Your task to perform on an android device: Search for seafood restaurants on Google Maps Image 0: 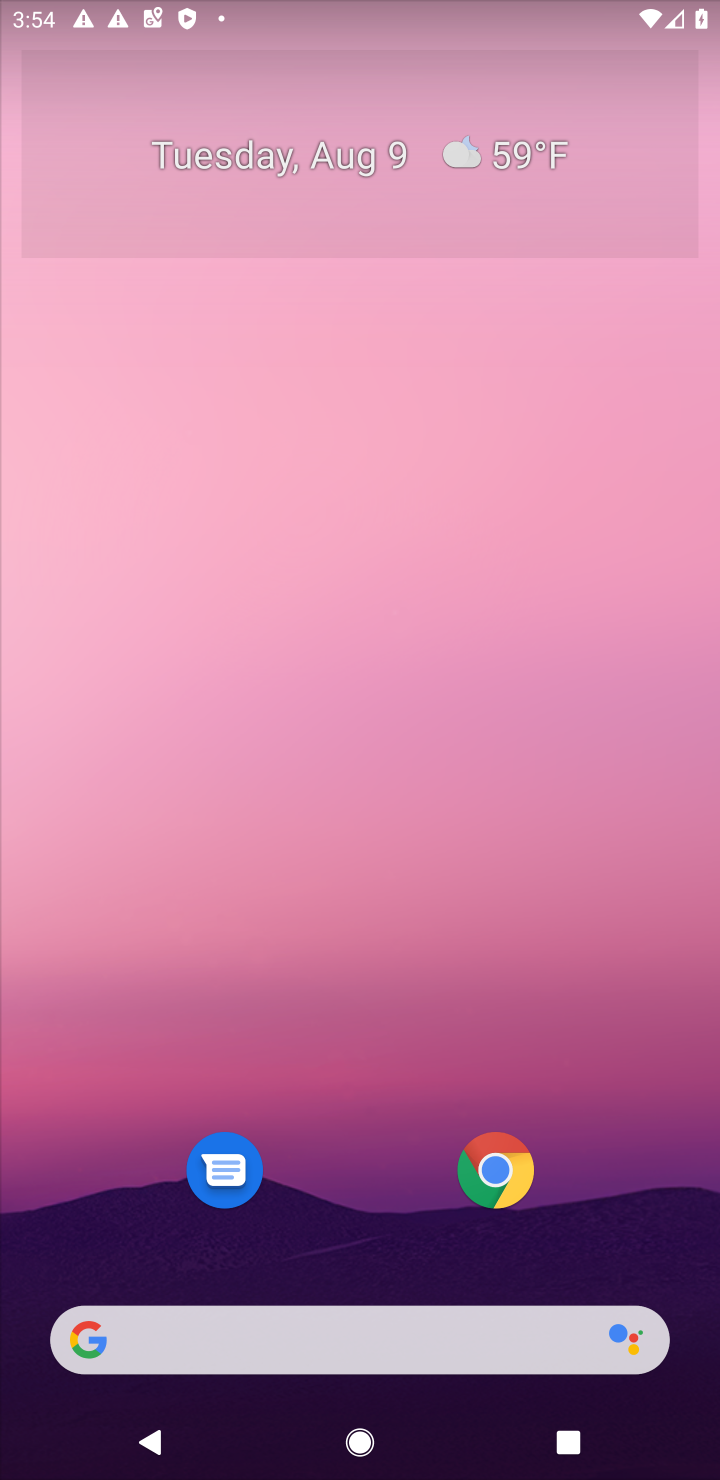
Step 0: press home button
Your task to perform on an android device: Search for seafood restaurants on Google Maps Image 1: 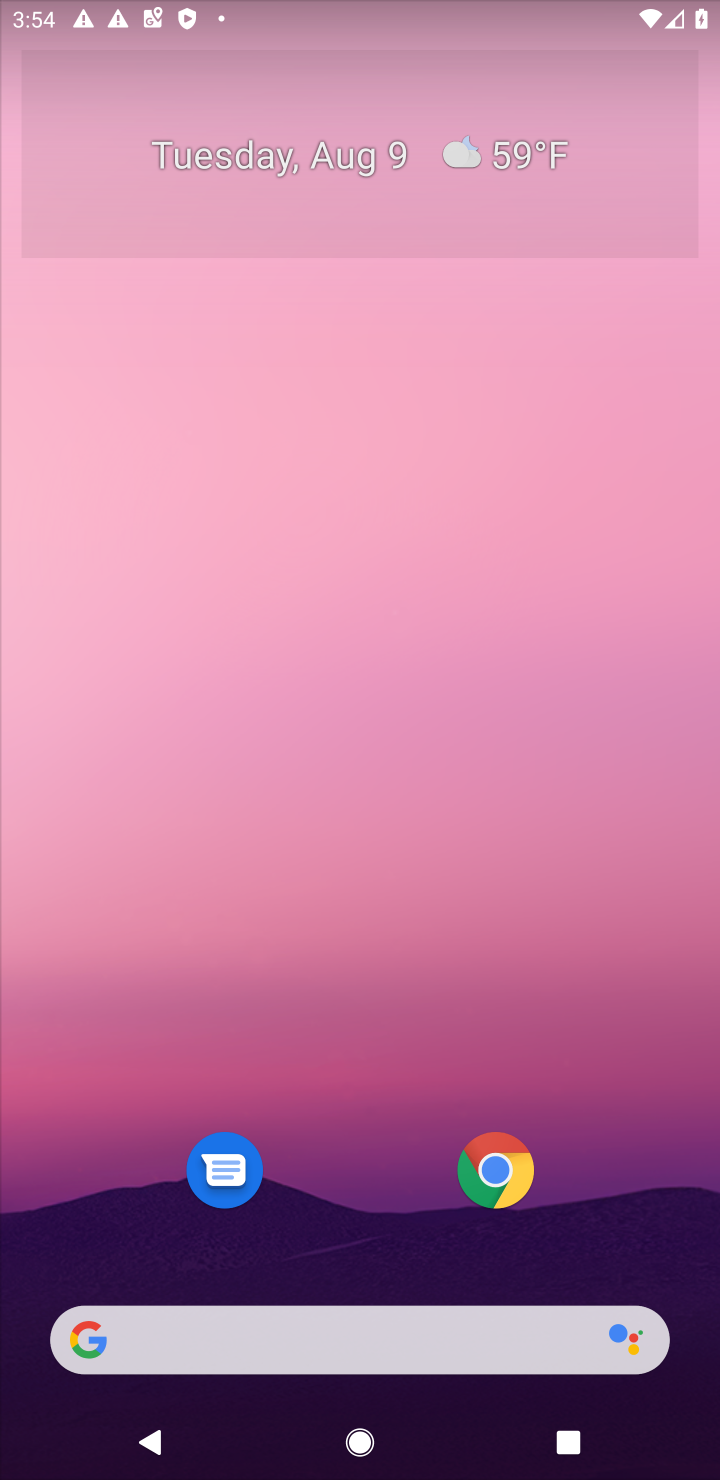
Step 1: drag from (384, 544) to (395, 345)
Your task to perform on an android device: Search for seafood restaurants on Google Maps Image 2: 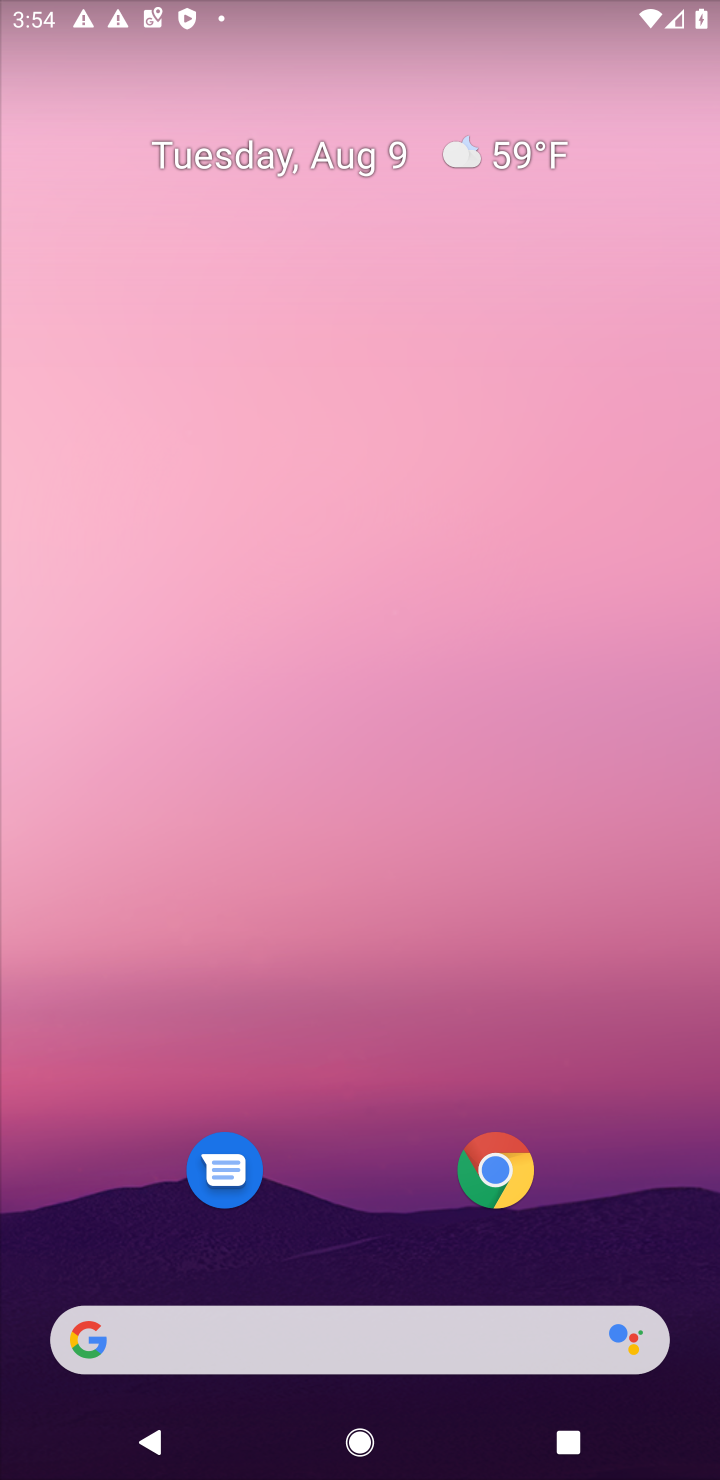
Step 2: drag from (370, 1212) to (348, 41)
Your task to perform on an android device: Search for seafood restaurants on Google Maps Image 3: 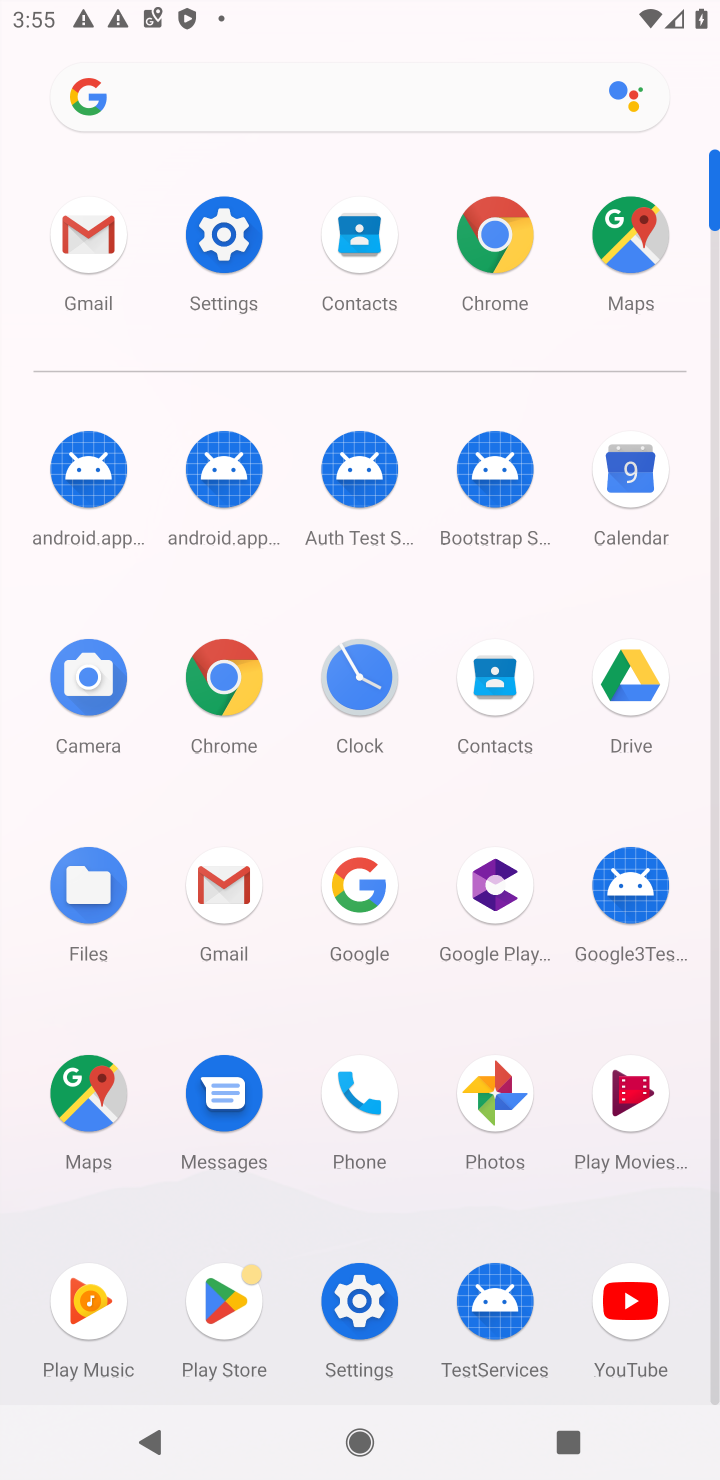
Step 3: click (90, 1068)
Your task to perform on an android device: Search for seafood restaurants on Google Maps Image 4: 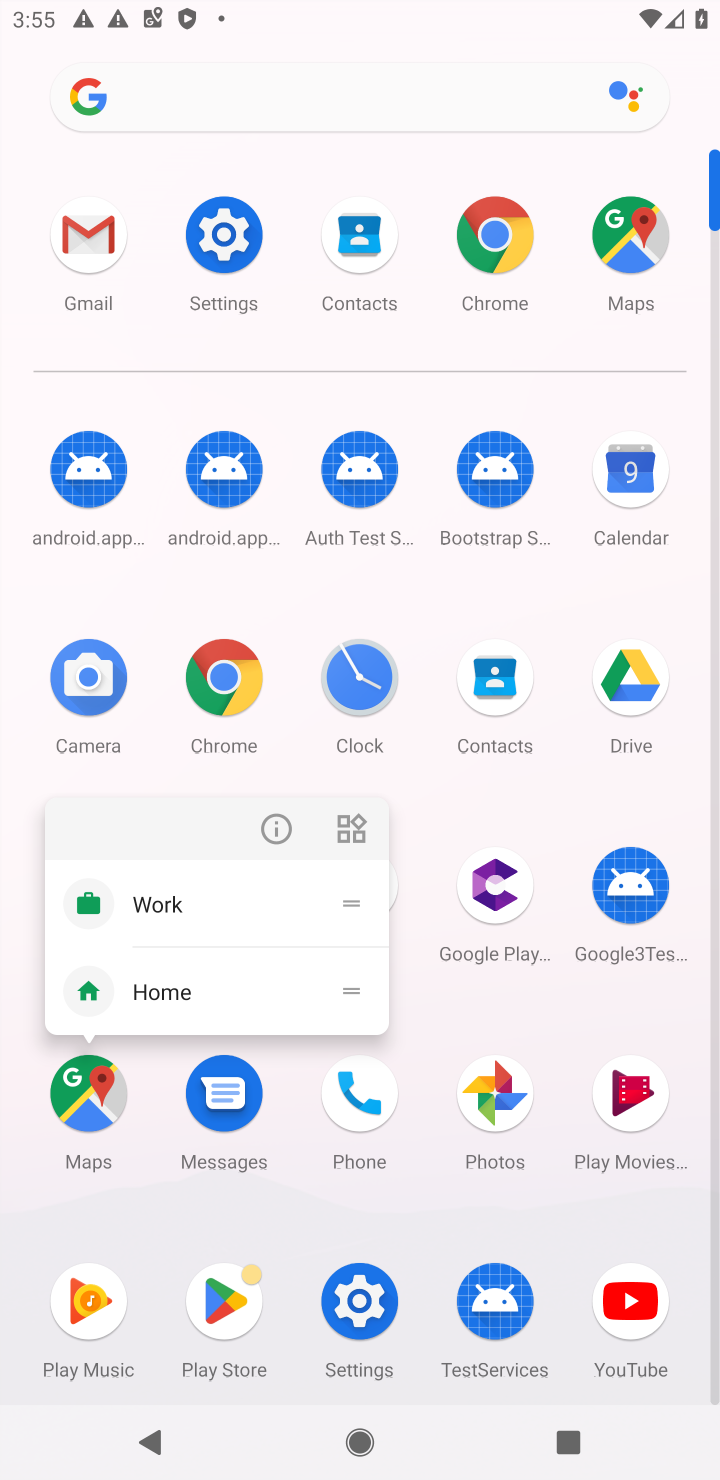
Step 4: click (87, 1098)
Your task to perform on an android device: Search for seafood restaurants on Google Maps Image 5: 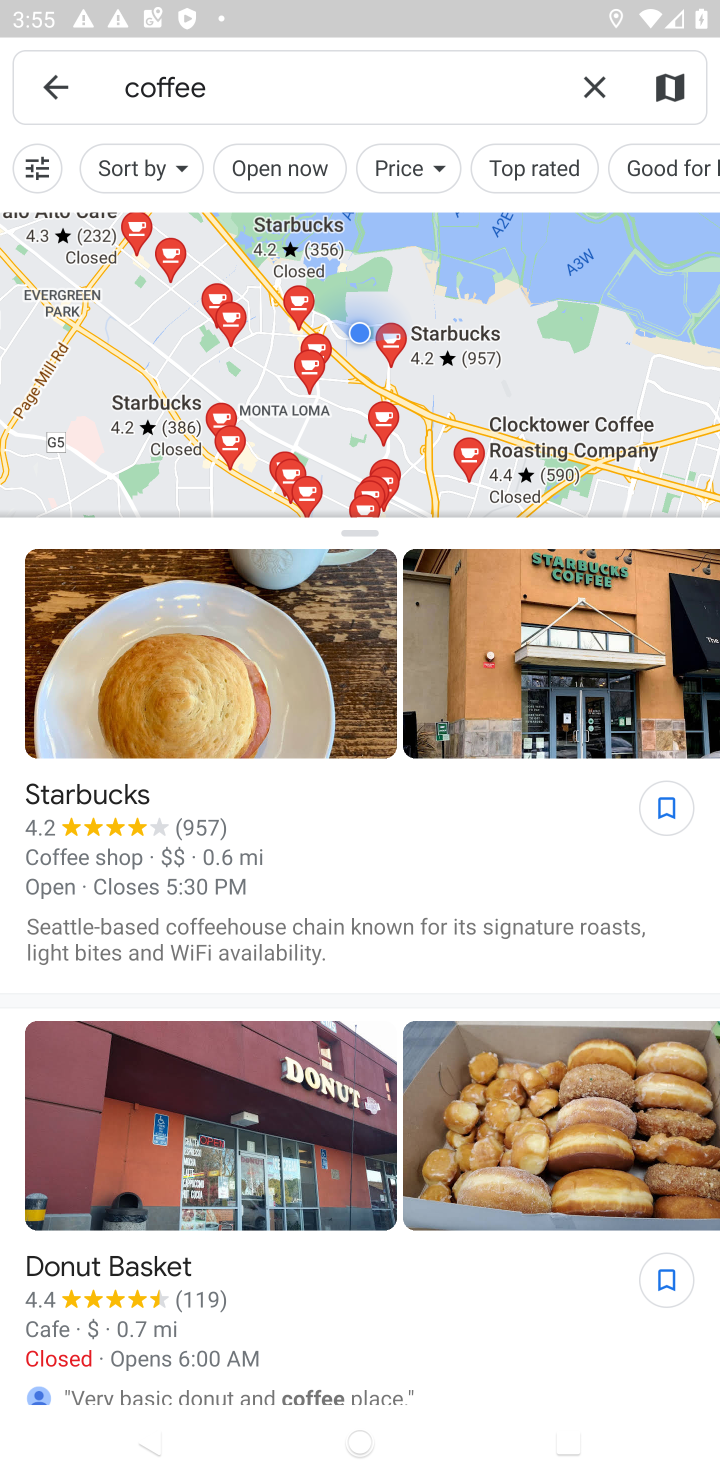
Step 5: click (598, 83)
Your task to perform on an android device: Search for seafood restaurants on Google Maps Image 6: 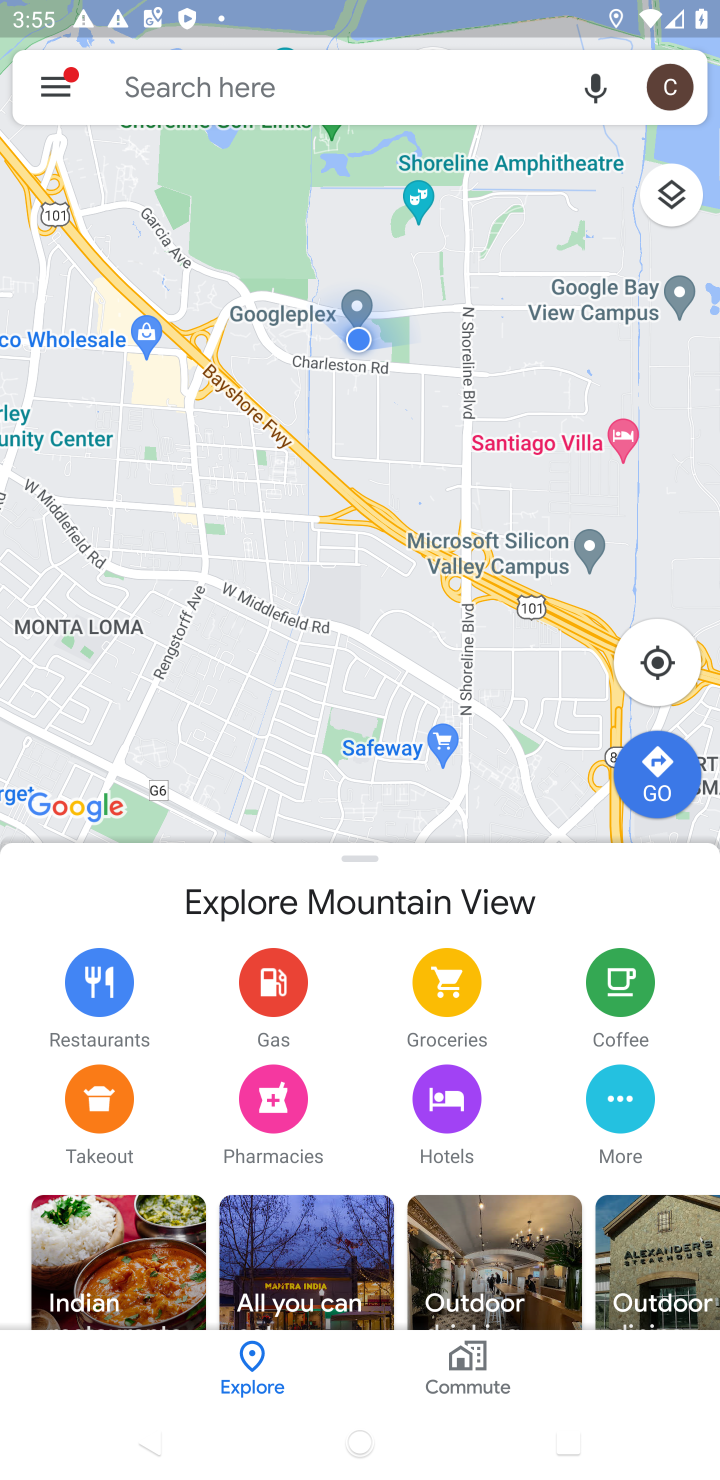
Step 6: click (238, 89)
Your task to perform on an android device: Search for seafood restaurants on Google Maps Image 7: 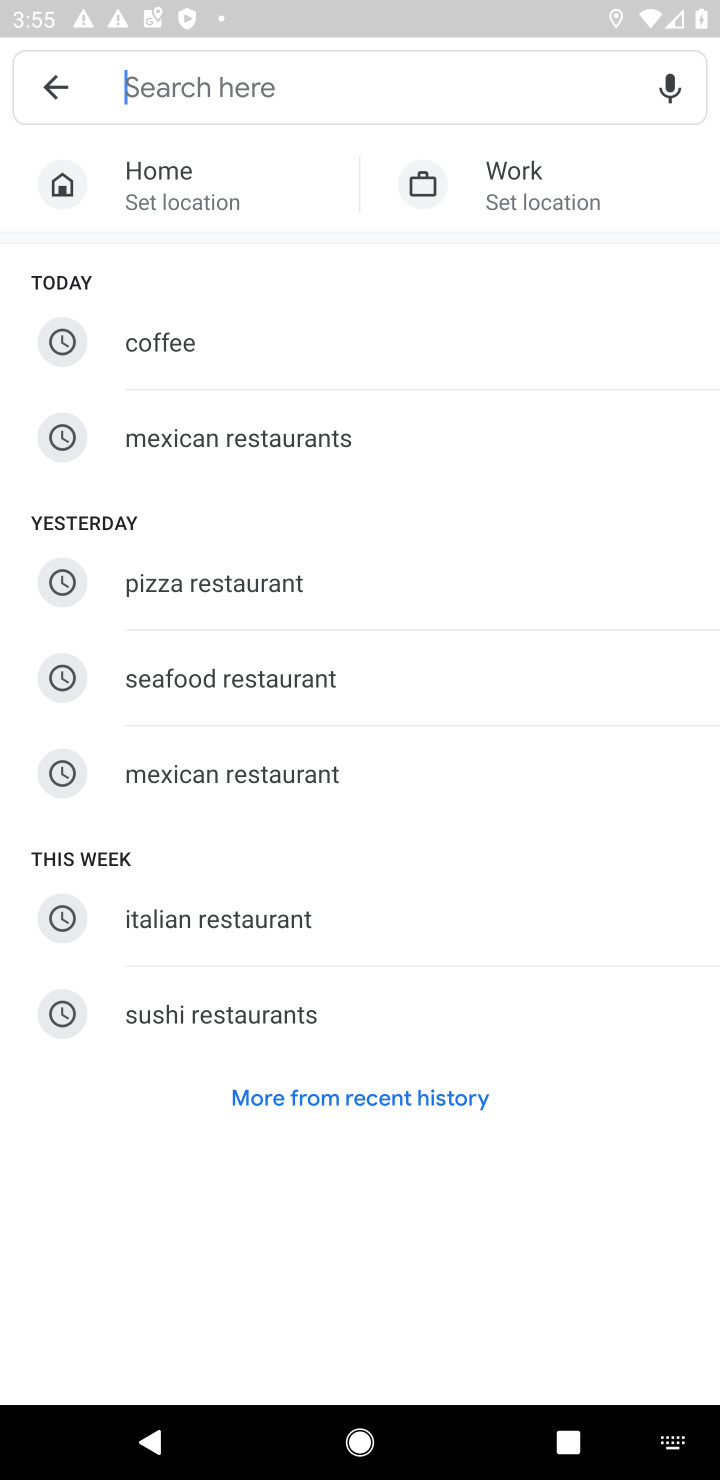
Step 7: type "seafood restaurants "
Your task to perform on an android device: Search for seafood restaurants on Google Maps Image 8: 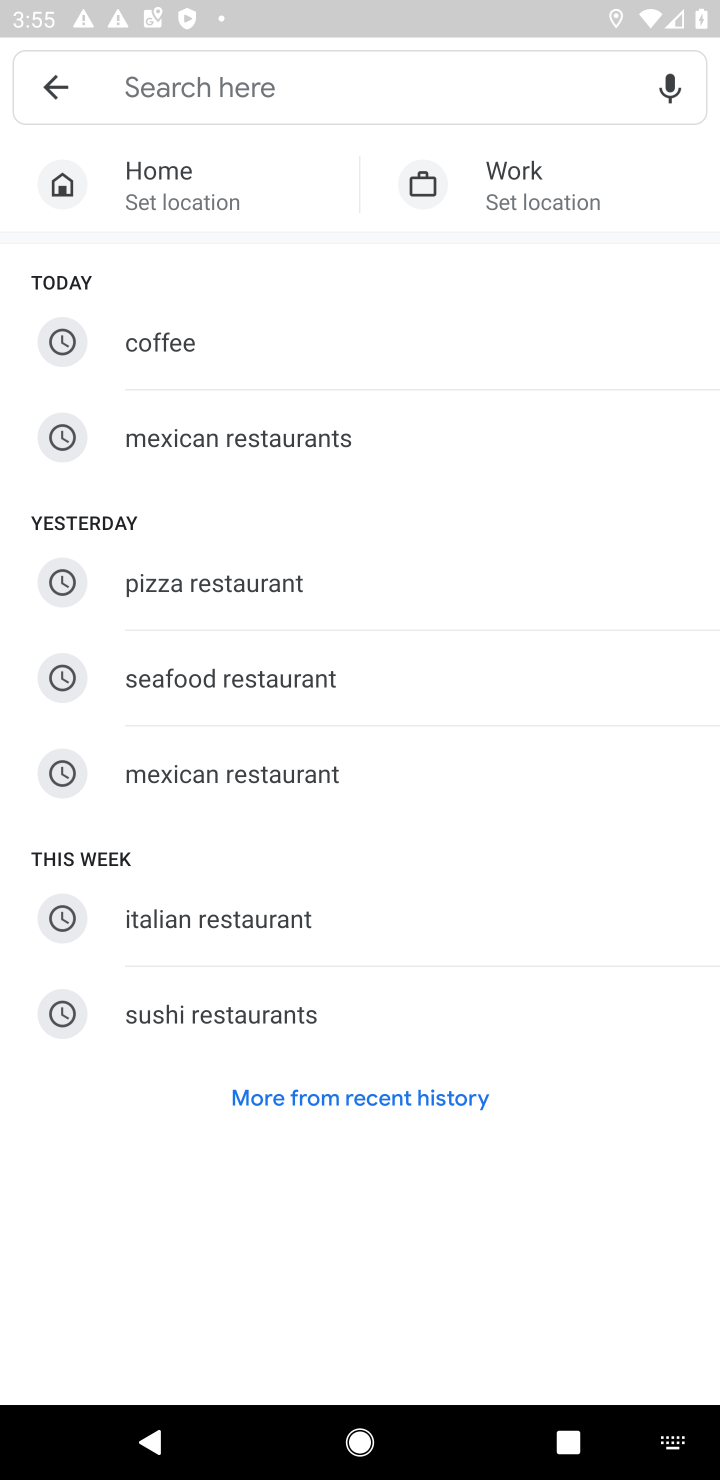
Step 8: click (198, 81)
Your task to perform on an android device: Search for seafood restaurants on Google Maps Image 9: 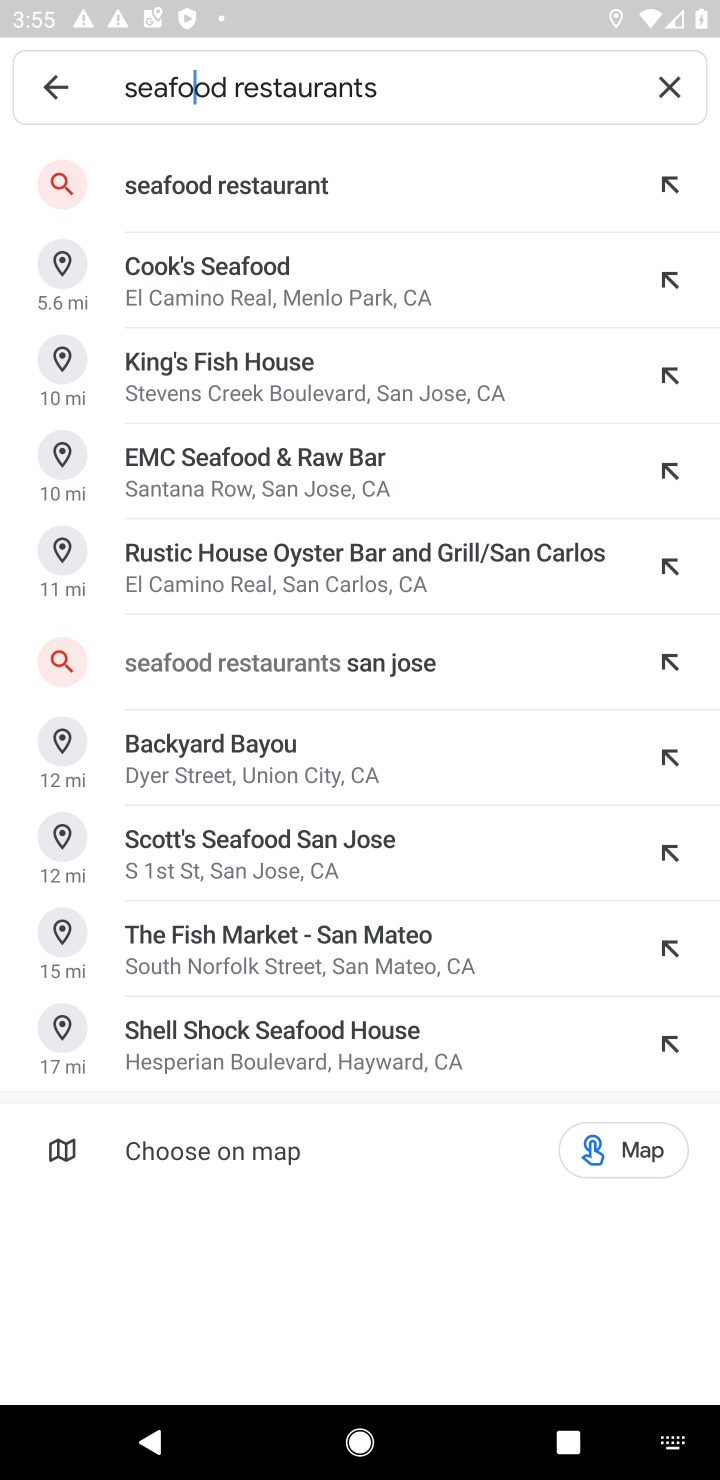
Step 9: press enter
Your task to perform on an android device: Search for seafood restaurants on Google Maps Image 10: 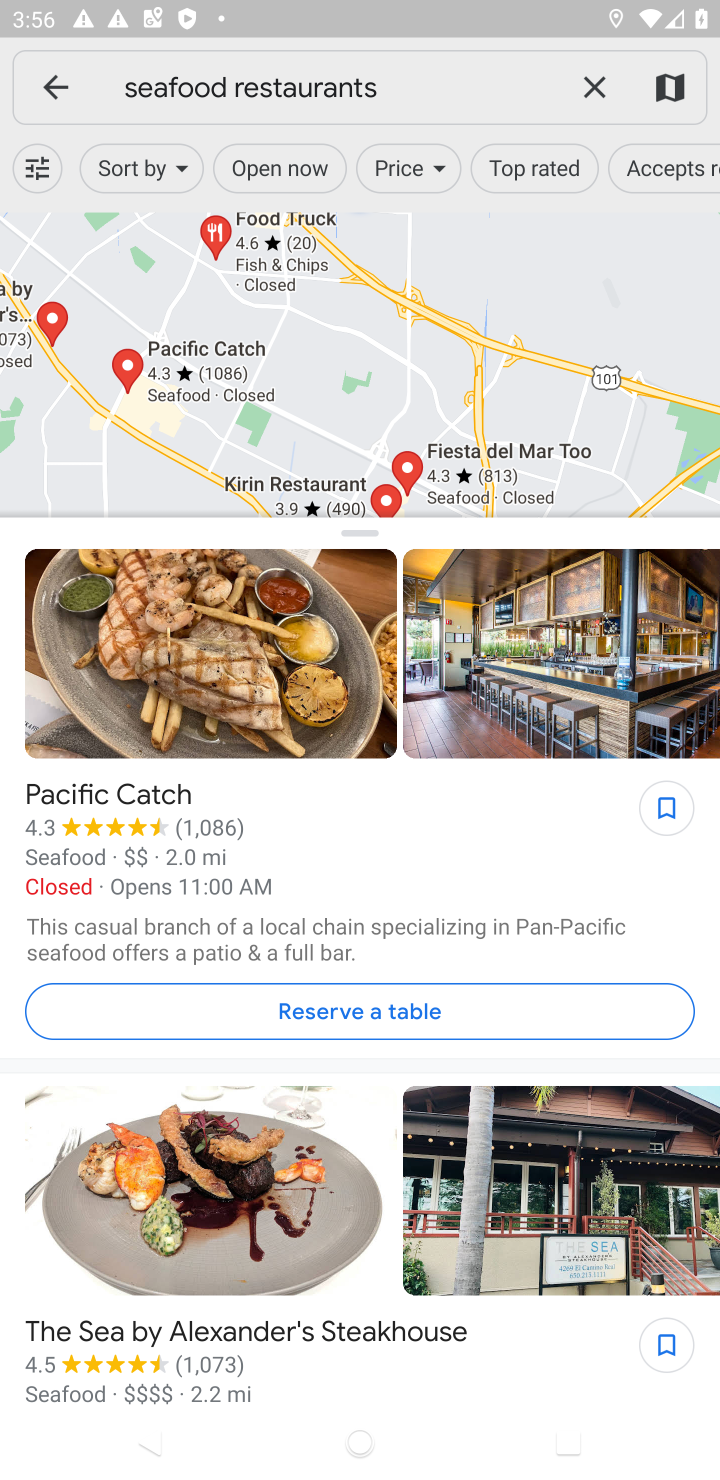
Step 10: task complete